Your task to perform on an android device: turn on javascript in the chrome app Image 0: 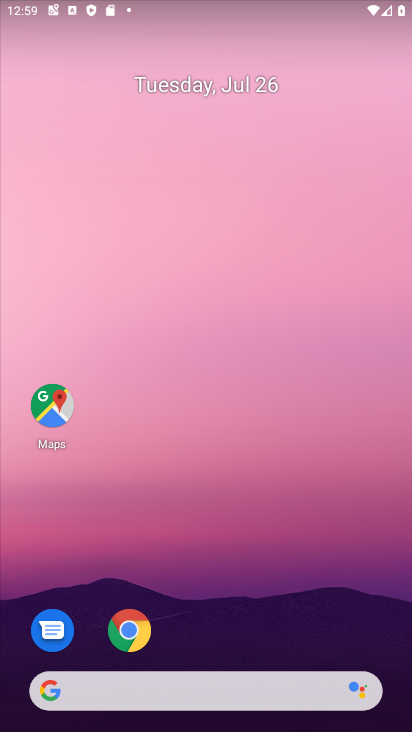
Step 0: click (132, 629)
Your task to perform on an android device: turn on javascript in the chrome app Image 1: 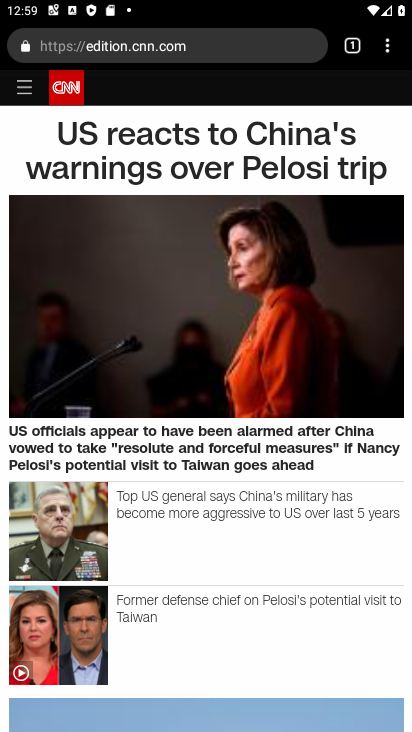
Step 1: click (386, 52)
Your task to perform on an android device: turn on javascript in the chrome app Image 2: 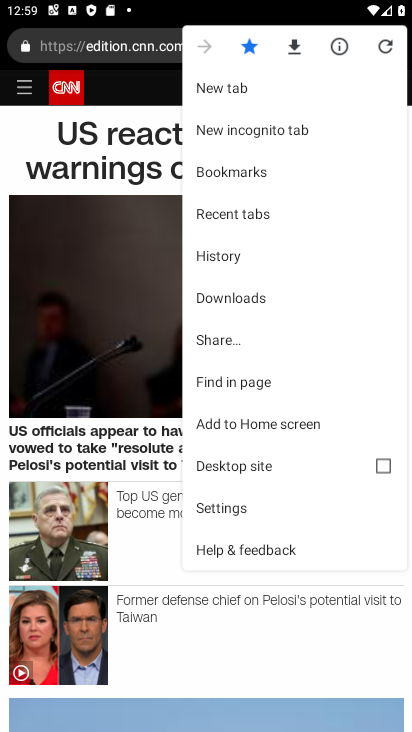
Step 2: click (226, 502)
Your task to perform on an android device: turn on javascript in the chrome app Image 3: 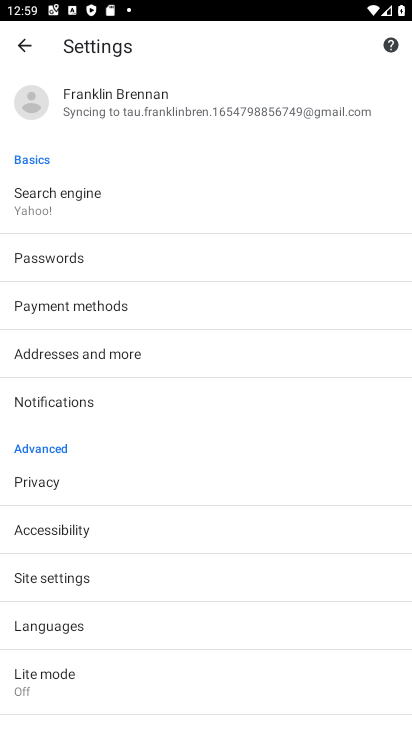
Step 3: click (43, 578)
Your task to perform on an android device: turn on javascript in the chrome app Image 4: 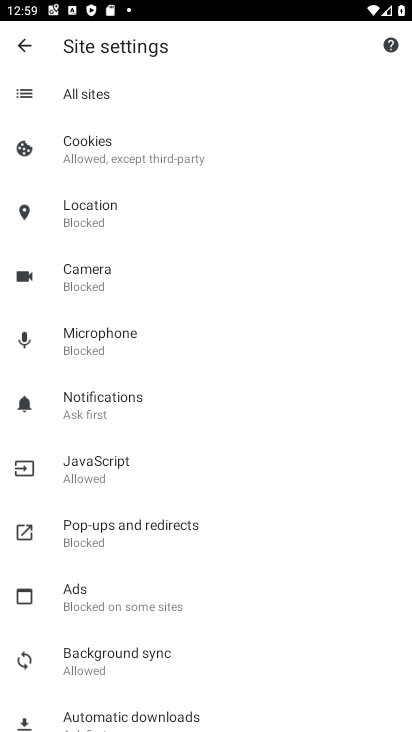
Step 4: click (75, 464)
Your task to perform on an android device: turn on javascript in the chrome app Image 5: 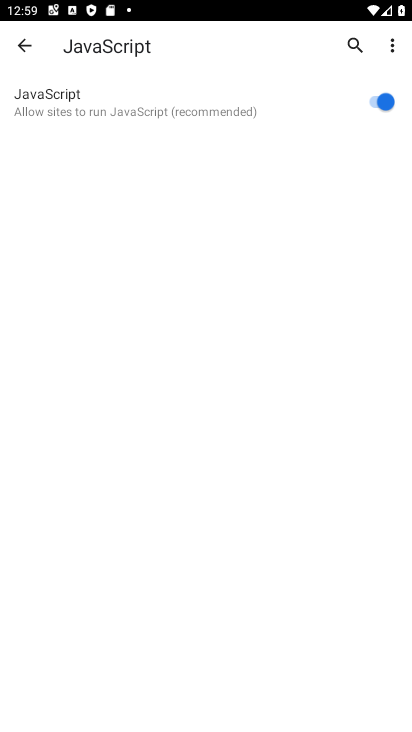
Step 5: task complete